Your task to perform on an android device: When is my next meeting? Image 0: 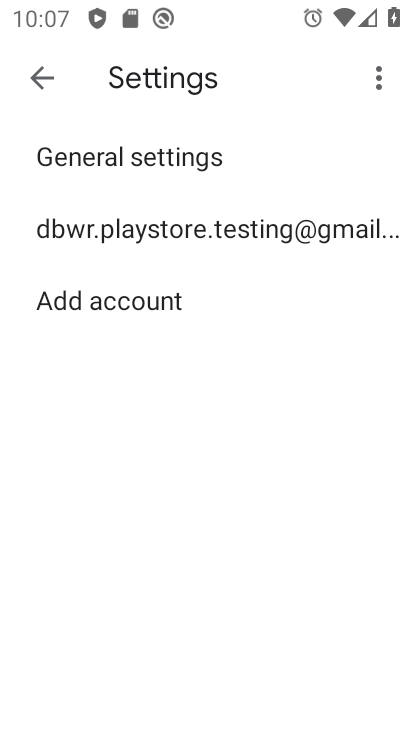
Step 0: press home button
Your task to perform on an android device: When is my next meeting? Image 1: 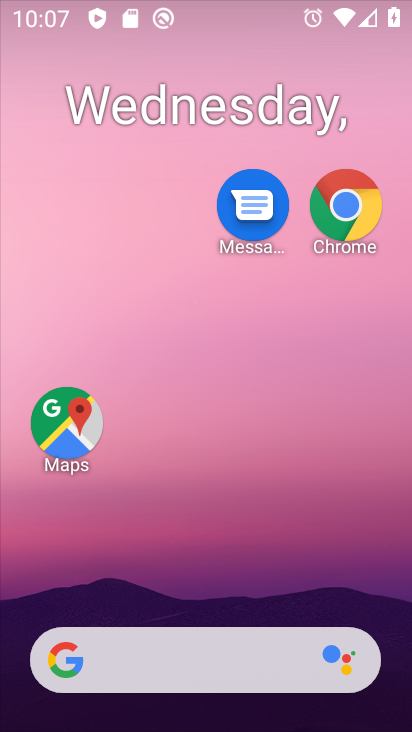
Step 1: drag from (254, 536) to (357, 1)
Your task to perform on an android device: When is my next meeting? Image 2: 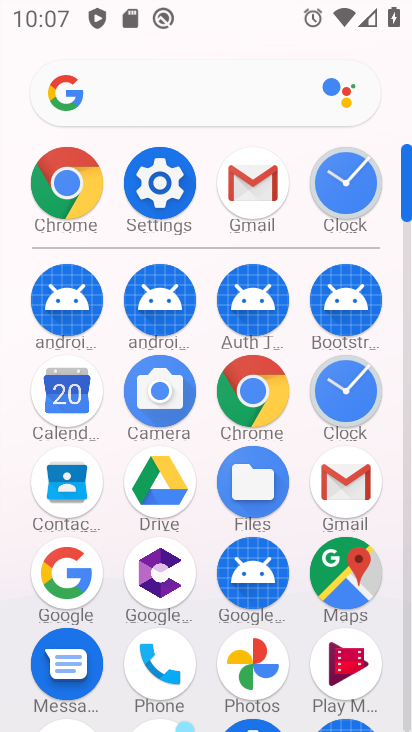
Step 2: click (60, 402)
Your task to perform on an android device: When is my next meeting? Image 3: 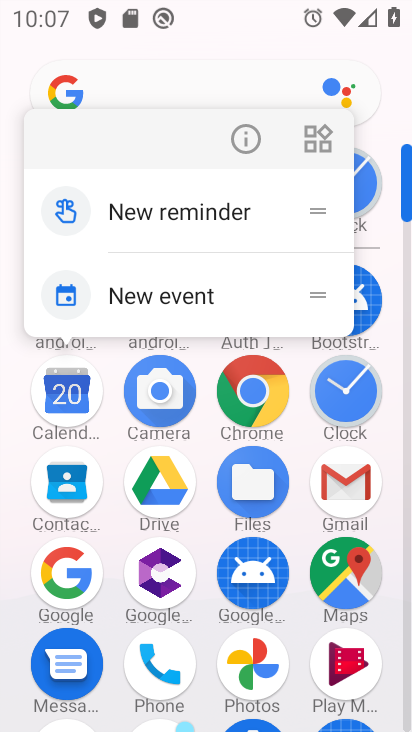
Step 3: click (237, 140)
Your task to perform on an android device: When is my next meeting? Image 4: 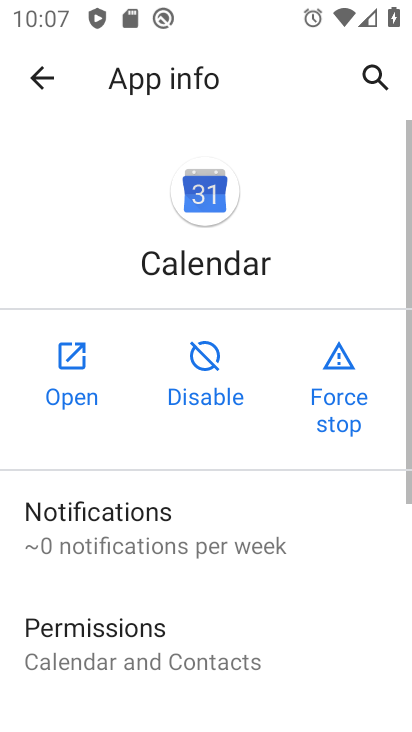
Step 4: click (75, 350)
Your task to perform on an android device: When is my next meeting? Image 5: 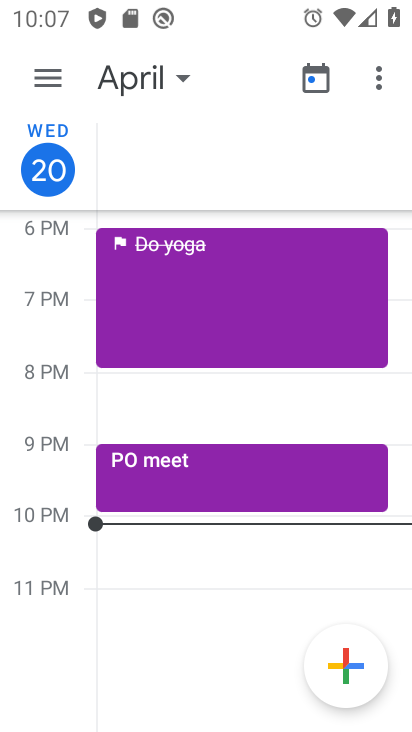
Step 5: task complete